Your task to perform on an android device: Set the phone to "Do not disturb". Image 0: 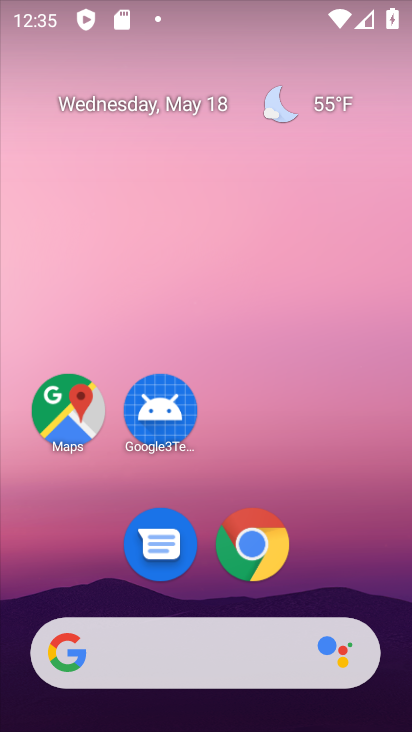
Step 0: drag from (209, 559) to (354, 25)
Your task to perform on an android device: Set the phone to "Do not disturb". Image 1: 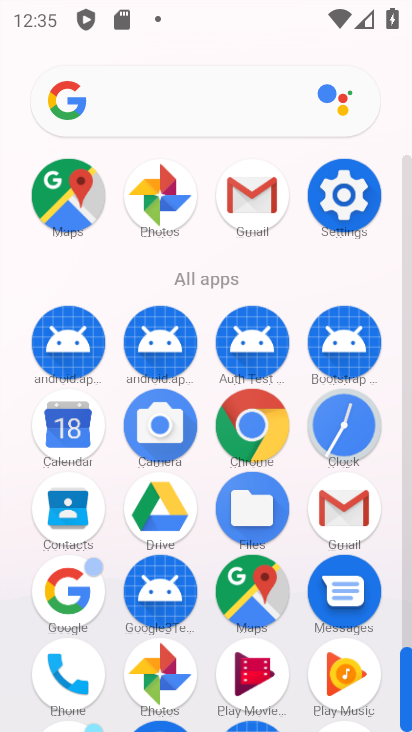
Step 1: click (337, 207)
Your task to perform on an android device: Set the phone to "Do not disturb". Image 2: 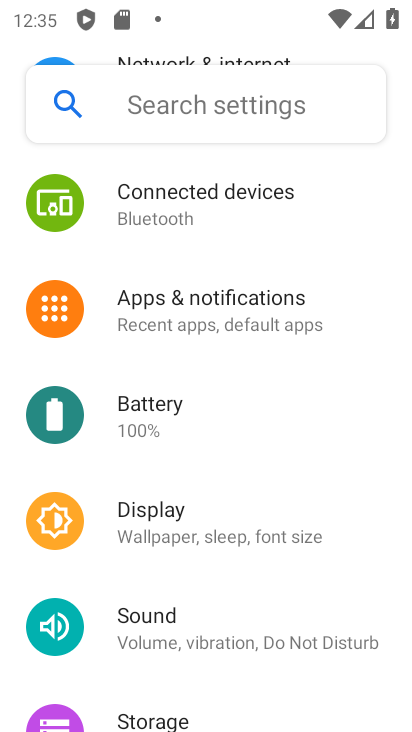
Step 2: click (162, 618)
Your task to perform on an android device: Set the phone to "Do not disturb". Image 3: 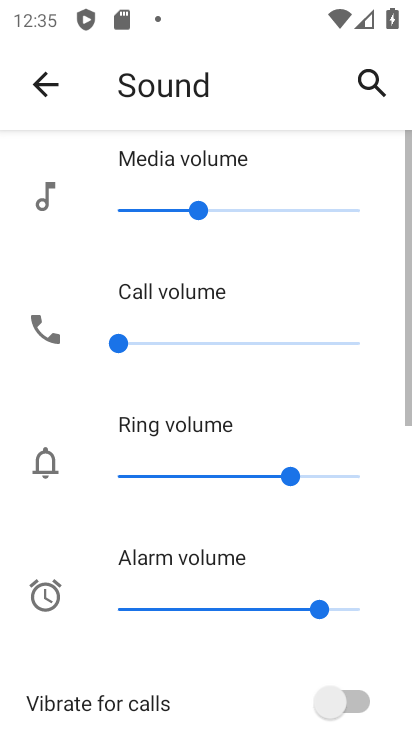
Step 3: drag from (198, 590) to (254, 291)
Your task to perform on an android device: Set the phone to "Do not disturb". Image 4: 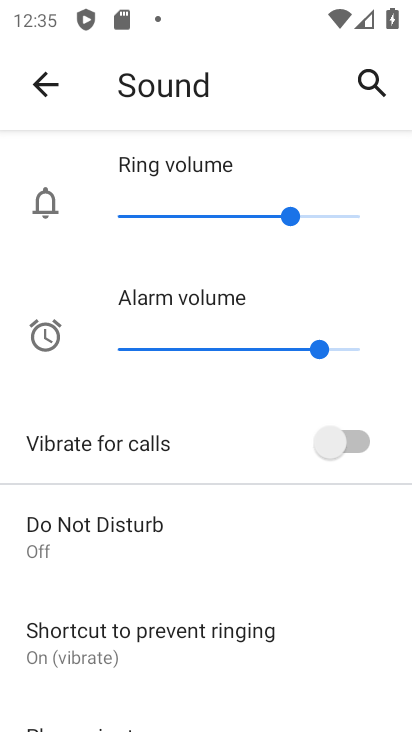
Step 4: click (83, 514)
Your task to perform on an android device: Set the phone to "Do not disturb". Image 5: 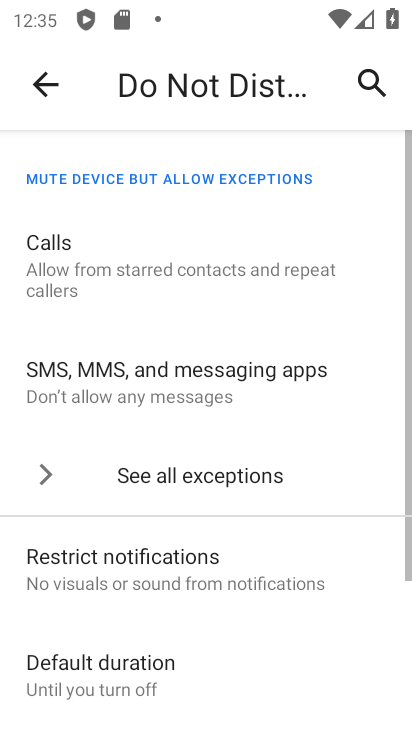
Step 5: drag from (202, 649) to (299, 171)
Your task to perform on an android device: Set the phone to "Do not disturb". Image 6: 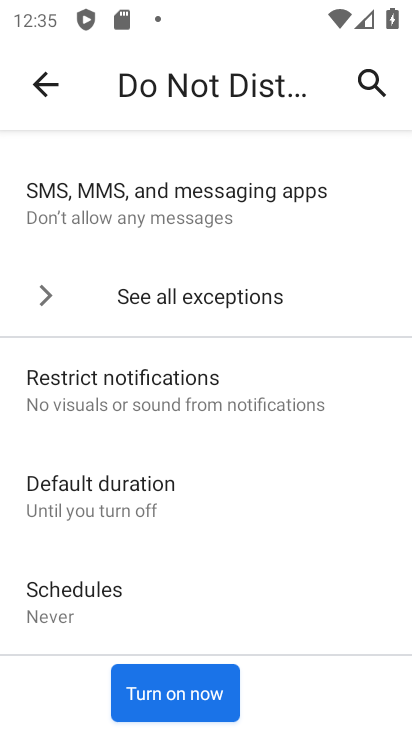
Step 6: click (183, 697)
Your task to perform on an android device: Set the phone to "Do not disturb". Image 7: 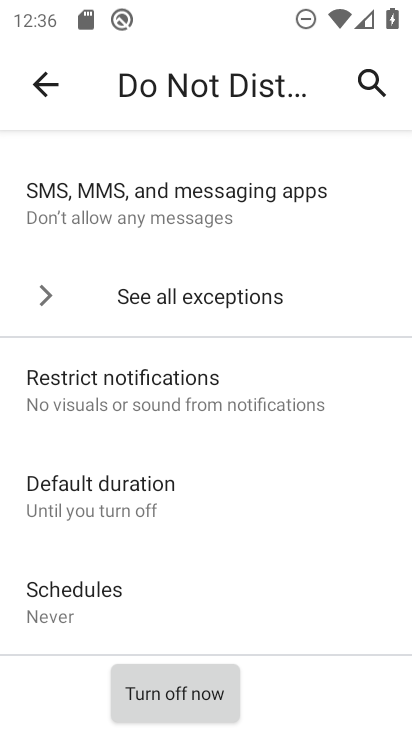
Step 7: task complete